Your task to perform on an android device: change notification settings in the gmail app Image 0: 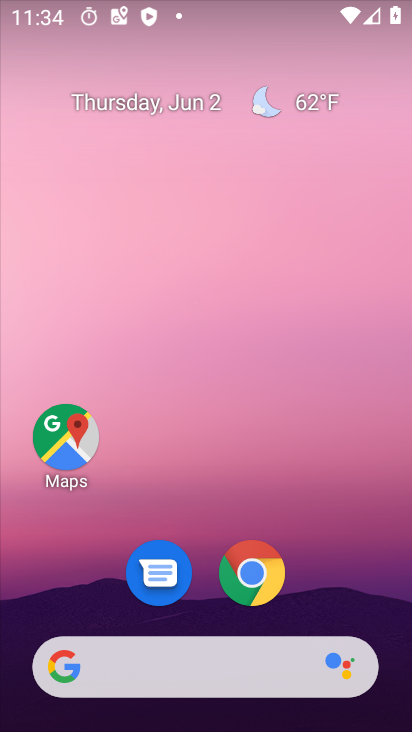
Step 0: drag from (297, 665) to (395, 12)
Your task to perform on an android device: change notification settings in the gmail app Image 1: 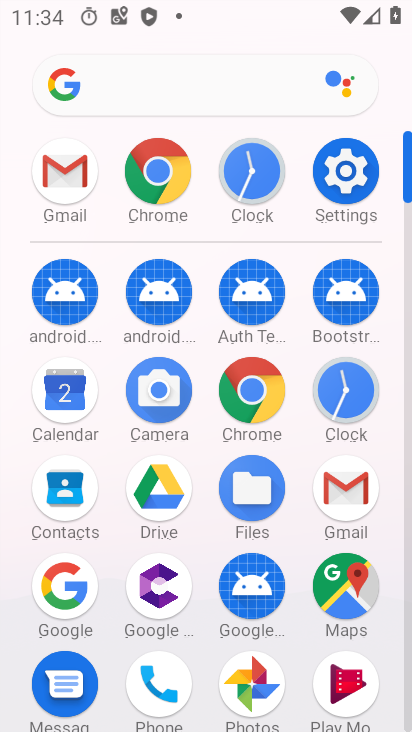
Step 1: click (359, 484)
Your task to perform on an android device: change notification settings in the gmail app Image 2: 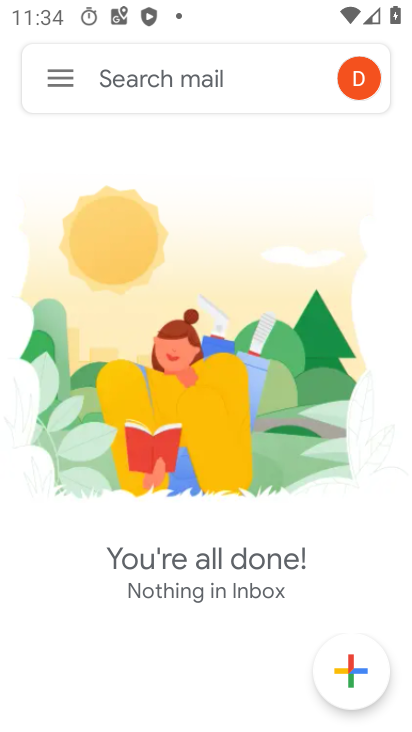
Step 2: click (51, 89)
Your task to perform on an android device: change notification settings in the gmail app Image 3: 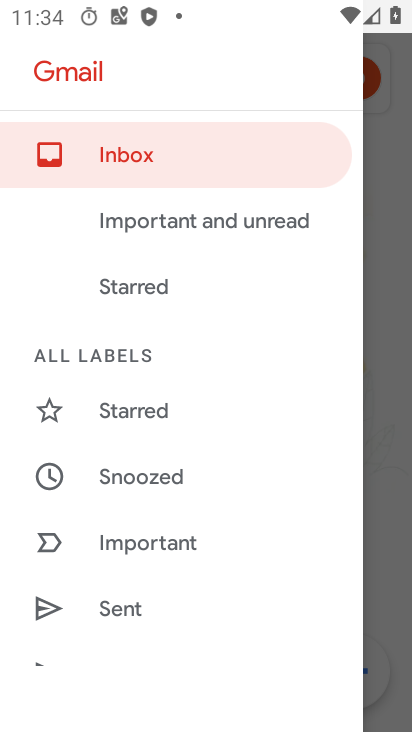
Step 3: drag from (163, 580) to (253, 44)
Your task to perform on an android device: change notification settings in the gmail app Image 4: 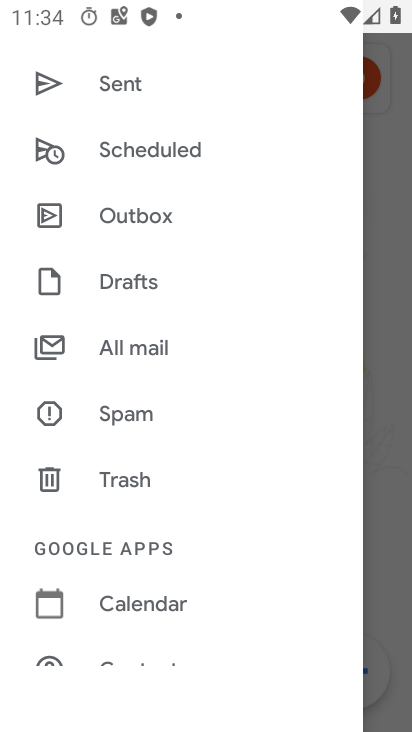
Step 4: drag from (137, 562) to (245, 97)
Your task to perform on an android device: change notification settings in the gmail app Image 5: 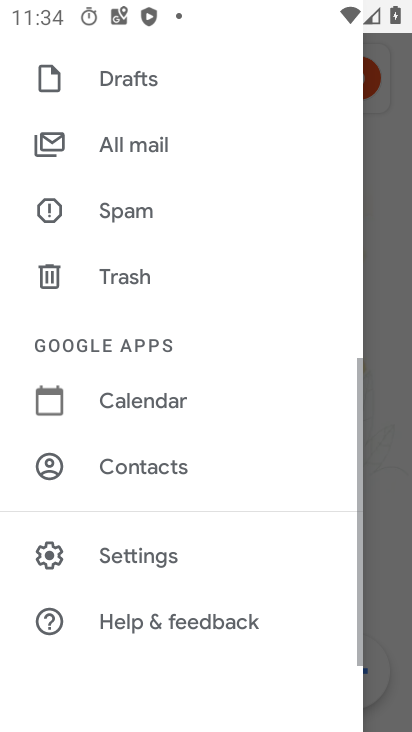
Step 5: click (200, 563)
Your task to perform on an android device: change notification settings in the gmail app Image 6: 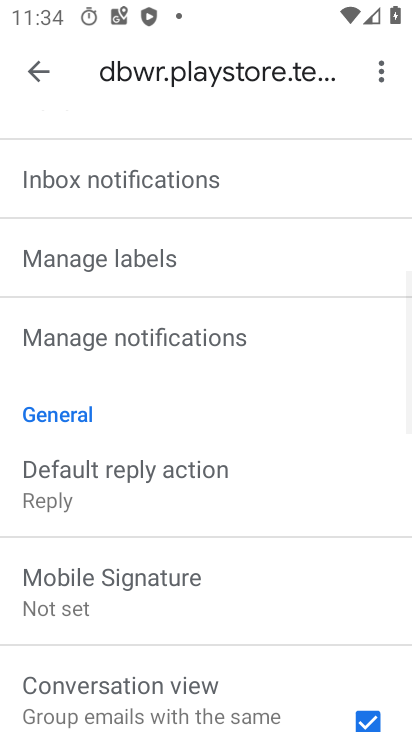
Step 6: drag from (183, 597) to (219, 437)
Your task to perform on an android device: change notification settings in the gmail app Image 7: 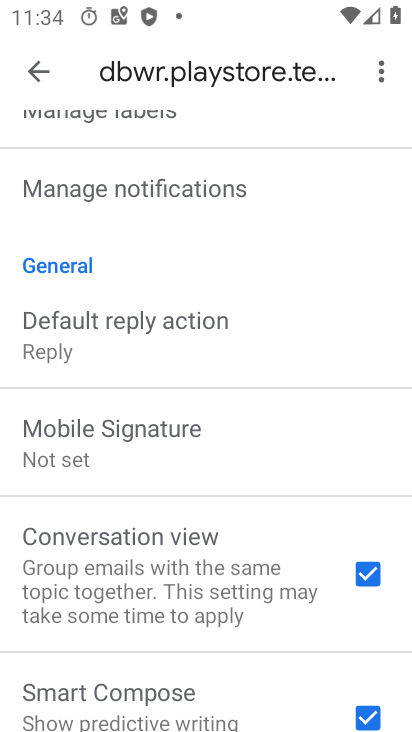
Step 7: click (186, 227)
Your task to perform on an android device: change notification settings in the gmail app Image 8: 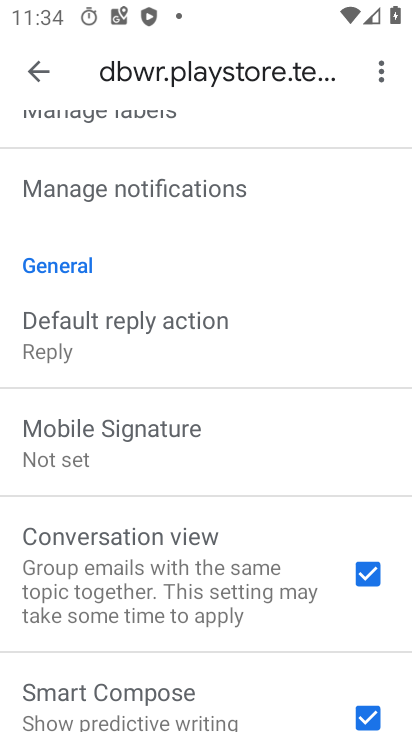
Step 8: click (197, 203)
Your task to perform on an android device: change notification settings in the gmail app Image 9: 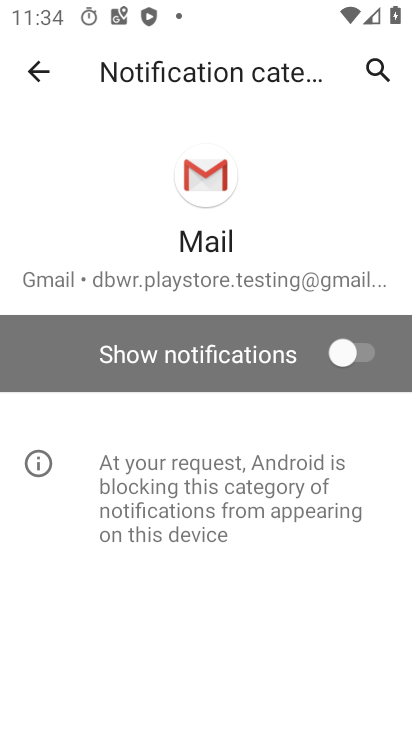
Step 9: click (359, 350)
Your task to perform on an android device: change notification settings in the gmail app Image 10: 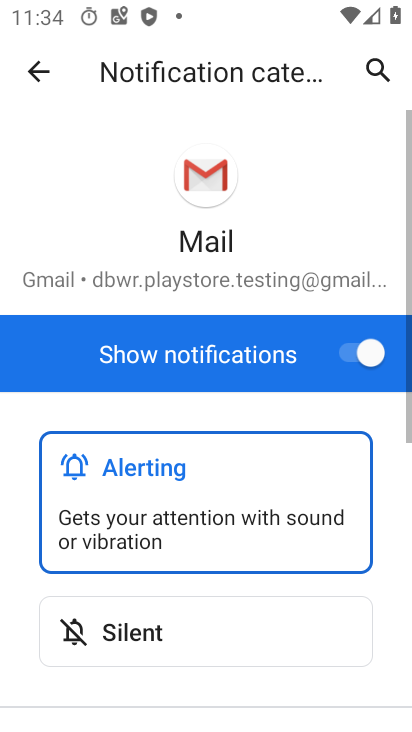
Step 10: task complete